Your task to perform on an android device: Open privacy settings Image 0: 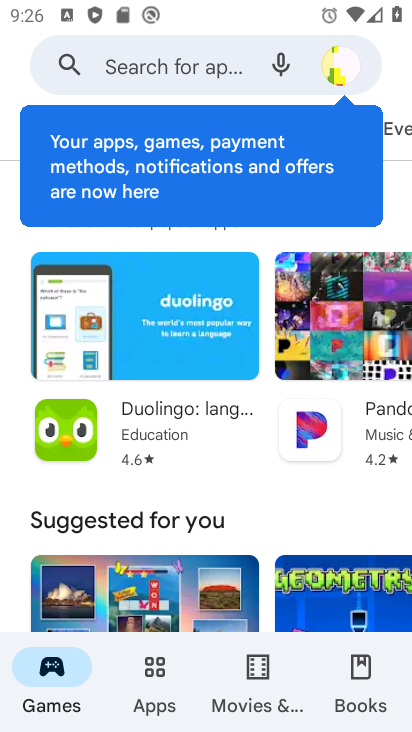
Step 0: press home button
Your task to perform on an android device: Open privacy settings Image 1: 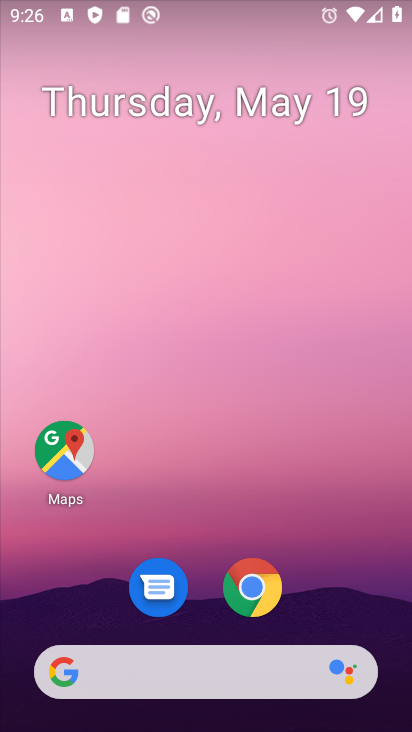
Step 1: drag from (407, 295) to (309, 19)
Your task to perform on an android device: Open privacy settings Image 2: 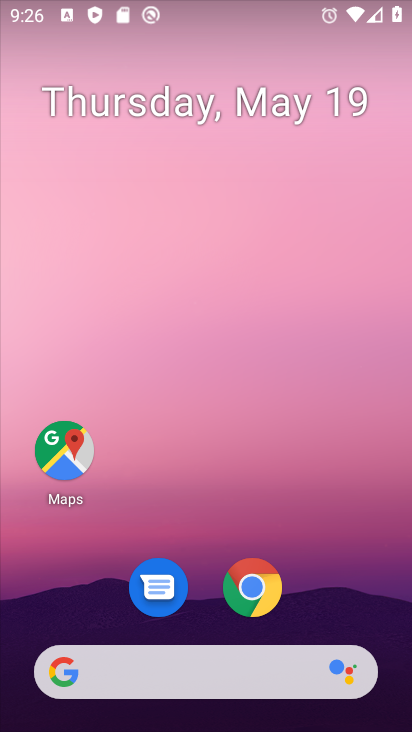
Step 2: drag from (338, 581) to (293, 7)
Your task to perform on an android device: Open privacy settings Image 3: 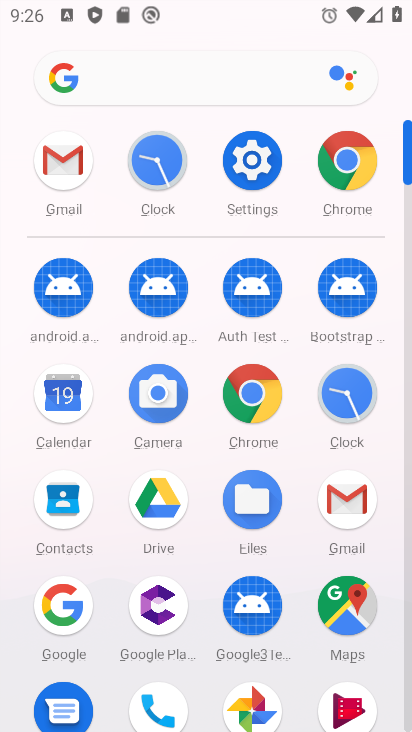
Step 3: click (255, 156)
Your task to perform on an android device: Open privacy settings Image 4: 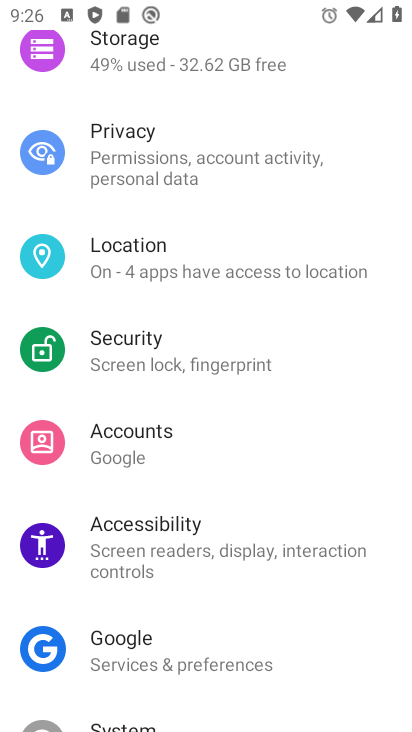
Step 4: drag from (261, 187) to (222, 521)
Your task to perform on an android device: Open privacy settings Image 5: 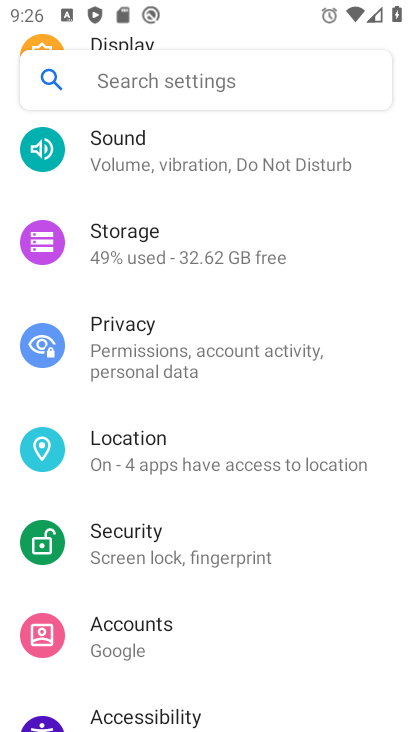
Step 5: drag from (207, 281) to (211, 535)
Your task to perform on an android device: Open privacy settings Image 6: 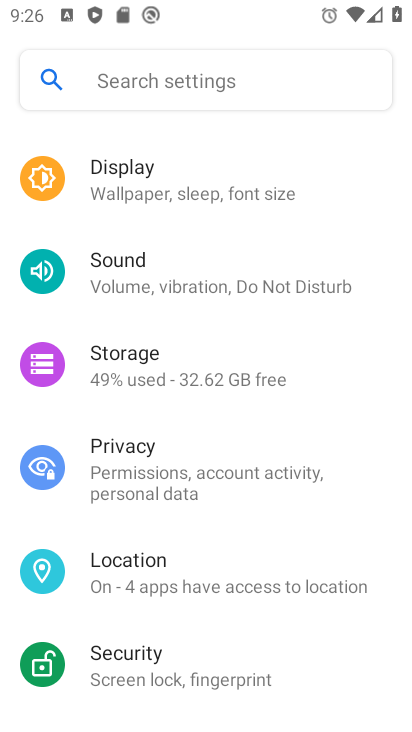
Step 6: drag from (249, 589) to (271, 257)
Your task to perform on an android device: Open privacy settings Image 7: 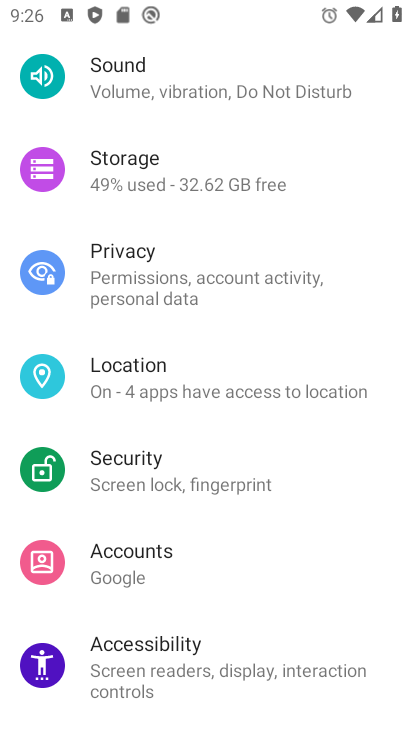
Step 7: click (155, 276)
Your task to perform on an android device: Open privacy settings Image 8: 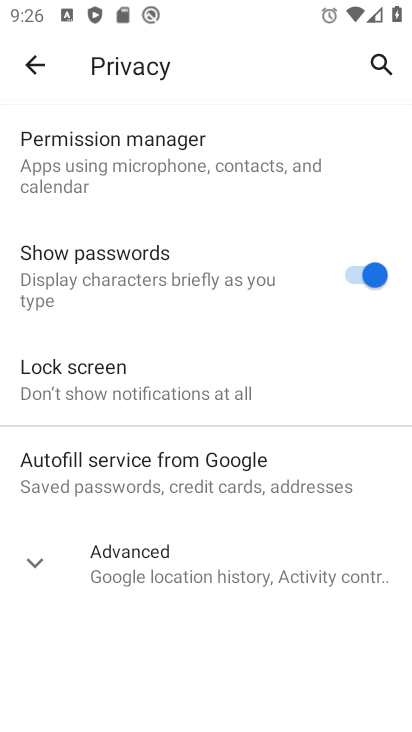
Step 8: task complete